Your task to perform on an android device: Go to battery settings Image 0: 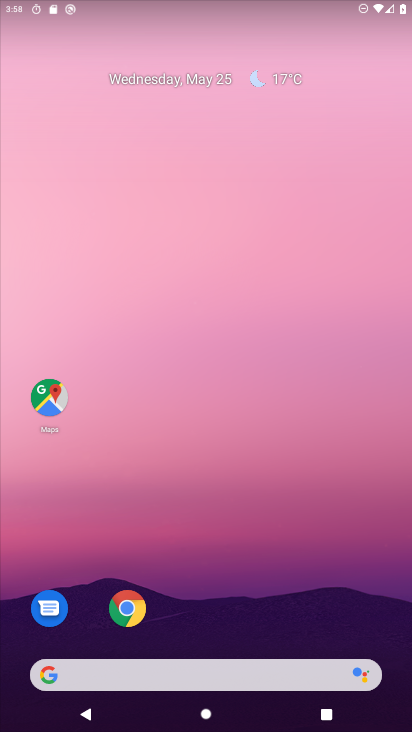
Step 0: drag from (238, 593) to (243, 130)
Your task to perform on an android device: Go to battery settings Image 1: 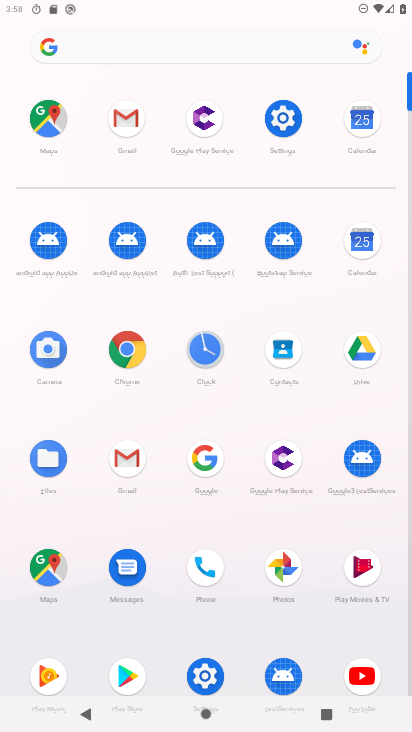
Step 1: click (284, 118)
Your task to perform on an android device: Go to battery settings Image 2: 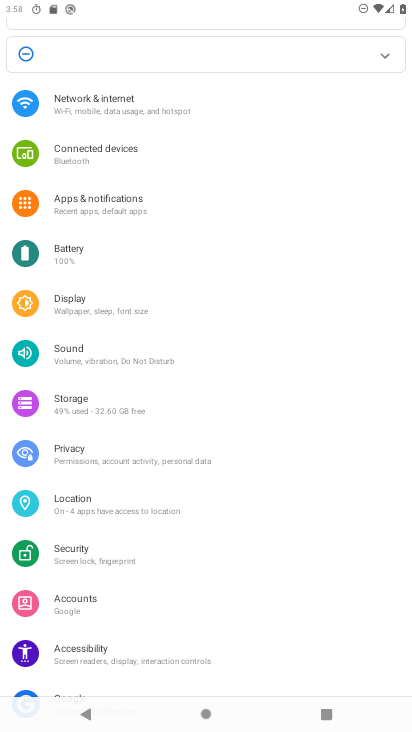
Step 2: drag from (130, 541) to (174, 198)
Your task to perform on an android device: Go to battery settings Image 3: 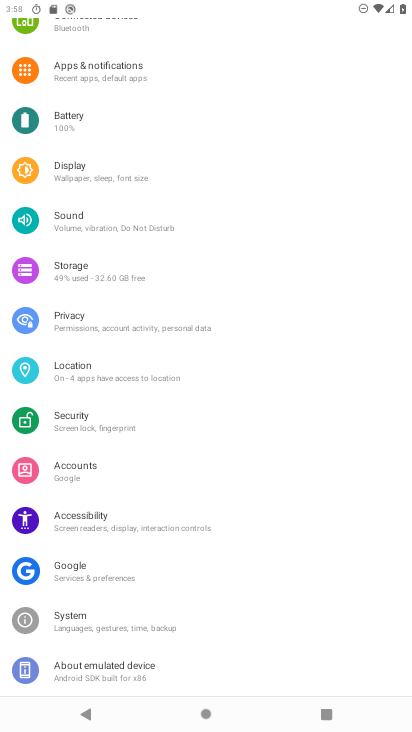
Step 3: drag from (90, 332) to (102, 605)
Your task to perform on an android device: Go to battery settings Image 4: 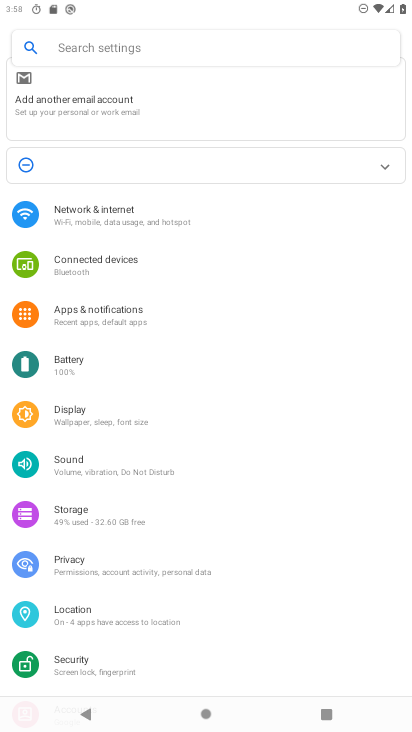
Step 4: drag from (176, 565) to (191, 240)
Your task to perform on an android device: Go to battery settings Image 5: 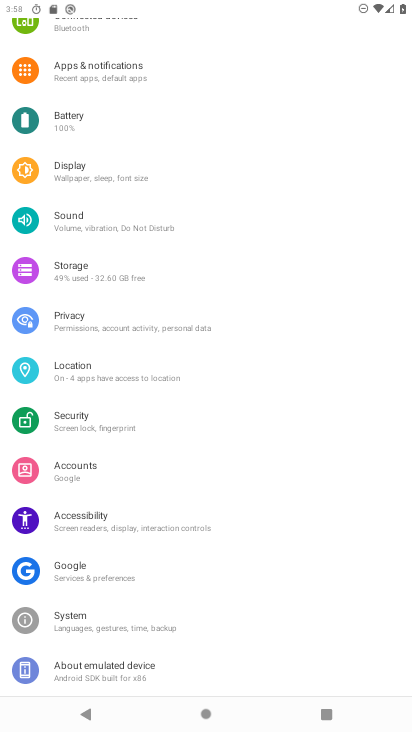
Step 5: click (70, 128)
Your task to perform on an android device: Go to battery settings Image 6: 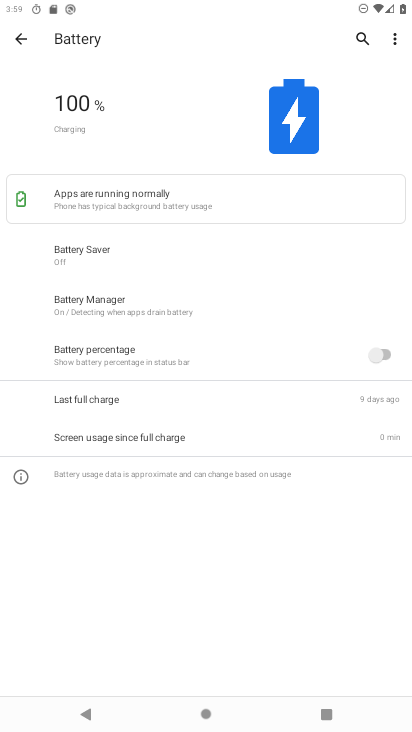
Step 6: task complete